Your task to perform on an android device: change keyboard looks Image 0: 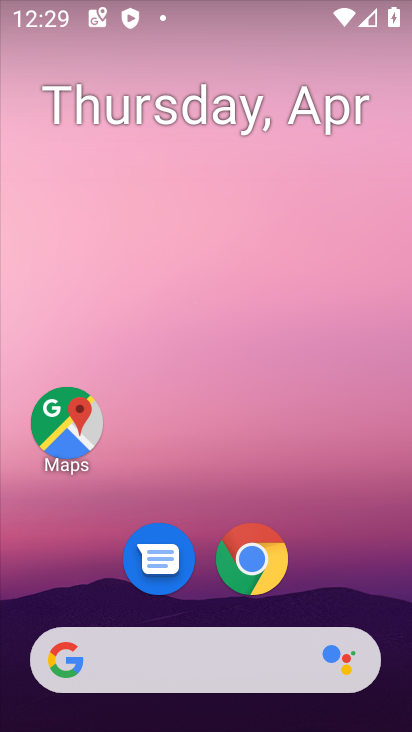
Step 0: drag from (202, 673) to (247, 409)
Your task to perform on an android device: change keyboard looks Image 1: 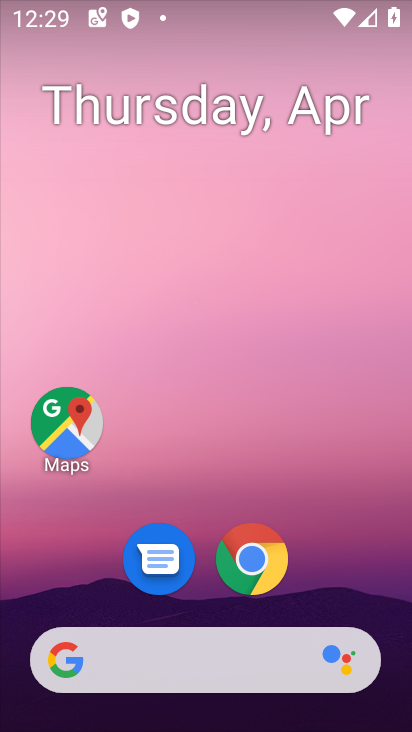
Step 1: drag from (234, 604) to (245, 190)
Your task to perform on an android device: change keyboard looks Image 2: 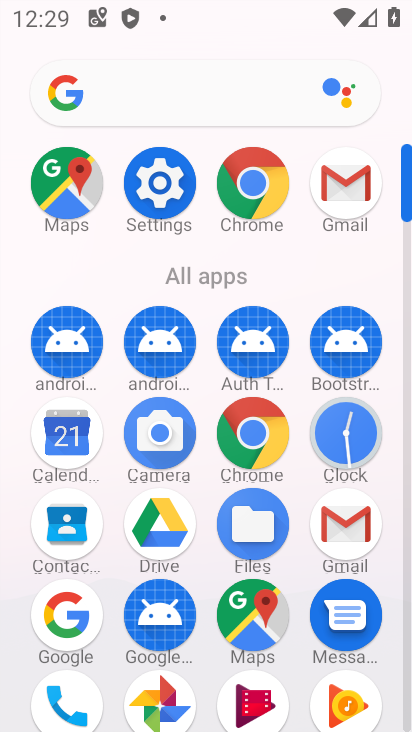
Step 2: click (147, 185)
Your task to perform on an android device: change keyboard looks Image 3: 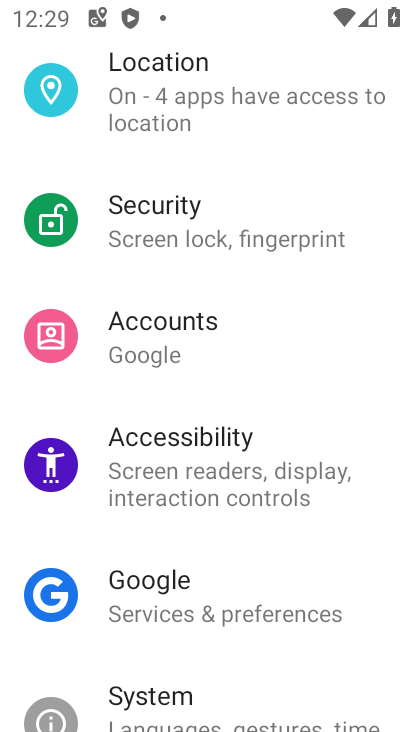
Step 3: click (179, 709)
Your task to perform on an android device: change keyboard looks Image 4: 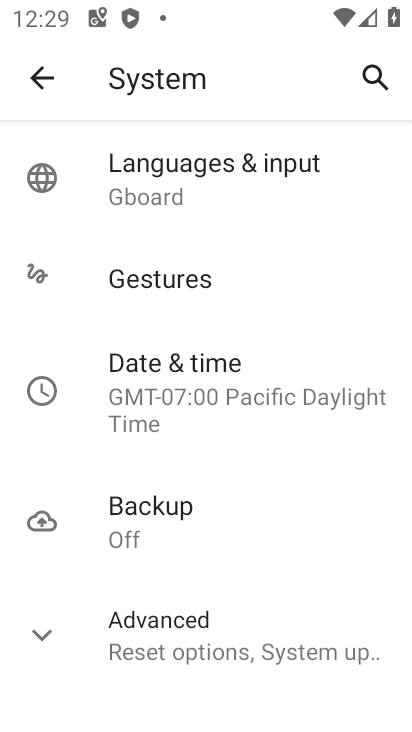
Step 4: click (193, 178)
Your task to perform on an android device: change keyboard looks Image 5: 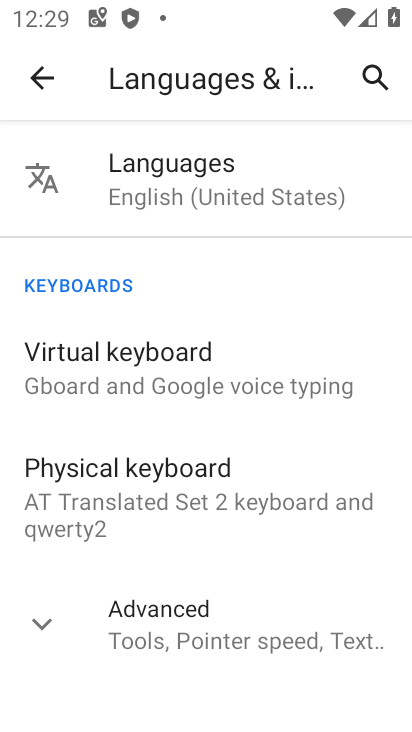
Step 5: click (117, 392)
Your task to perform on an android device: change keyboard looks Image 6: 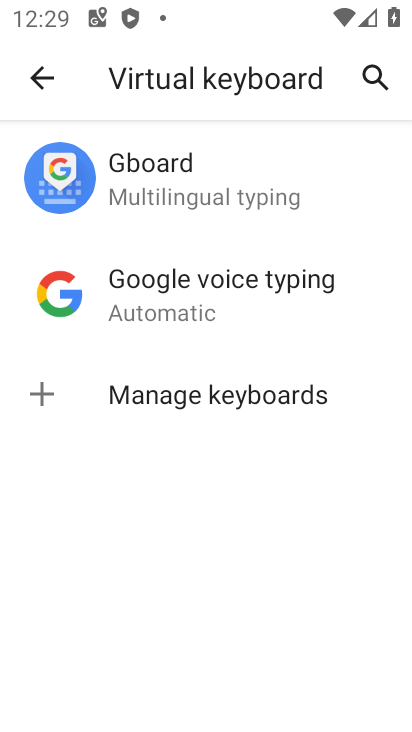
Step 6: click (223, 203)
Your task to perform on an android device: change keyboard looks Image 7: 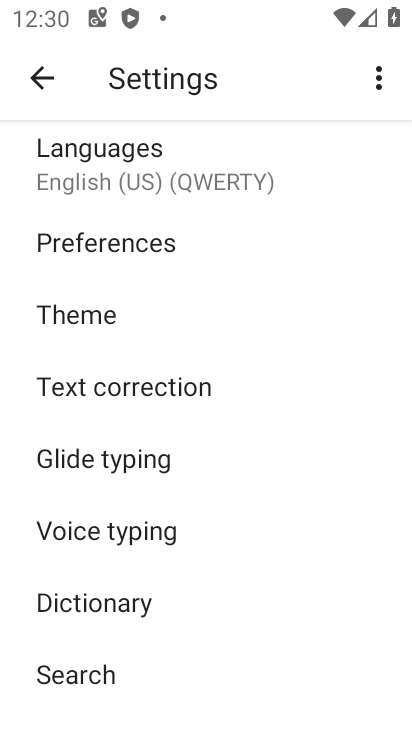
Step 7: click (44, 73)
Your task to perform on an android device: change keyboard looks Image 8: 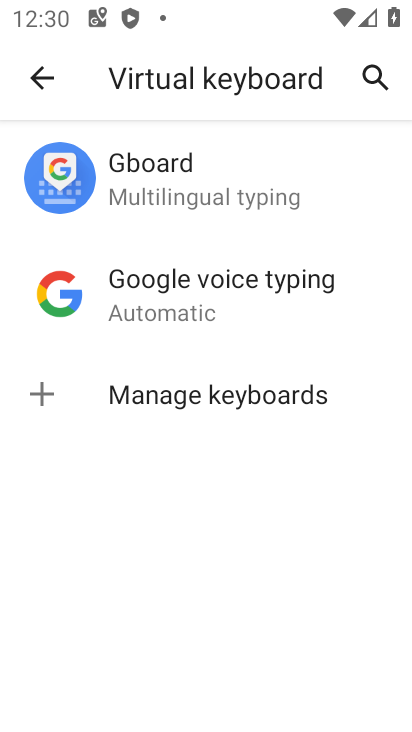
Step 8: click (157, 399)
Your task to perform on an android device: change keyboard looks Image 9: 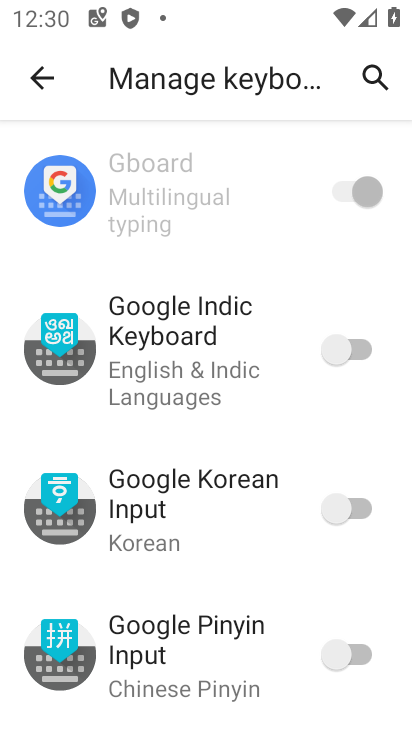
Step 9: click (339, 355)
Your task to perform on an android device: change keyboard looks Image 10: 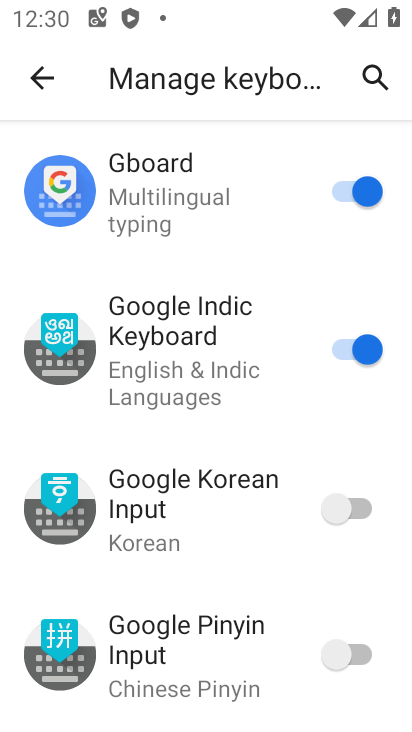
Step 10: task complete